Your task to perform on an android device: Show the shopping cart on target.com. Add "apple airpods" to the cart on target.com Image 0: 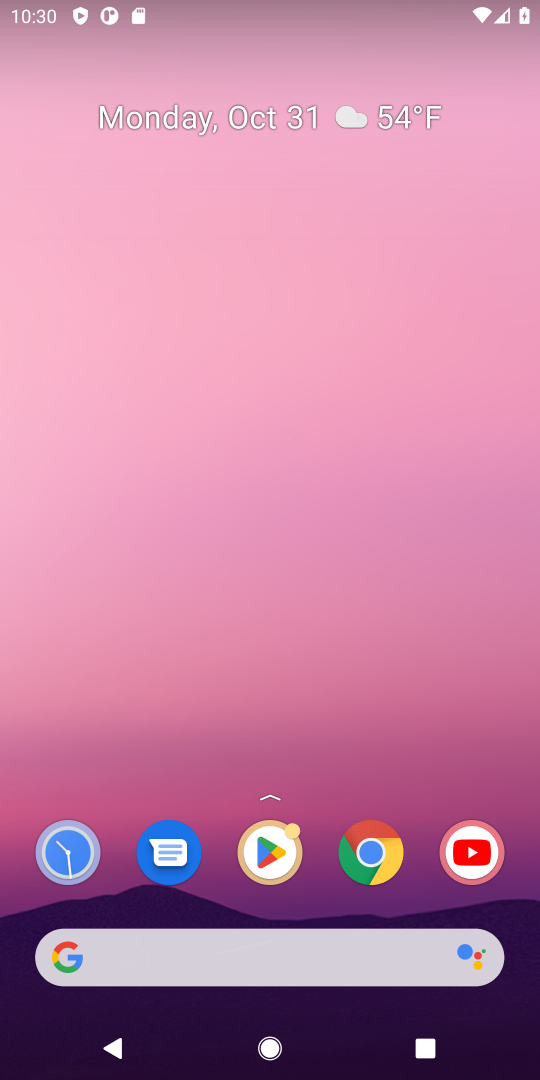
Step 0: click (390, 860)
Your task to perform on an android device: Show the shopping cart on target.com. Add "apple airpods" to the cart on target.com Image 1: 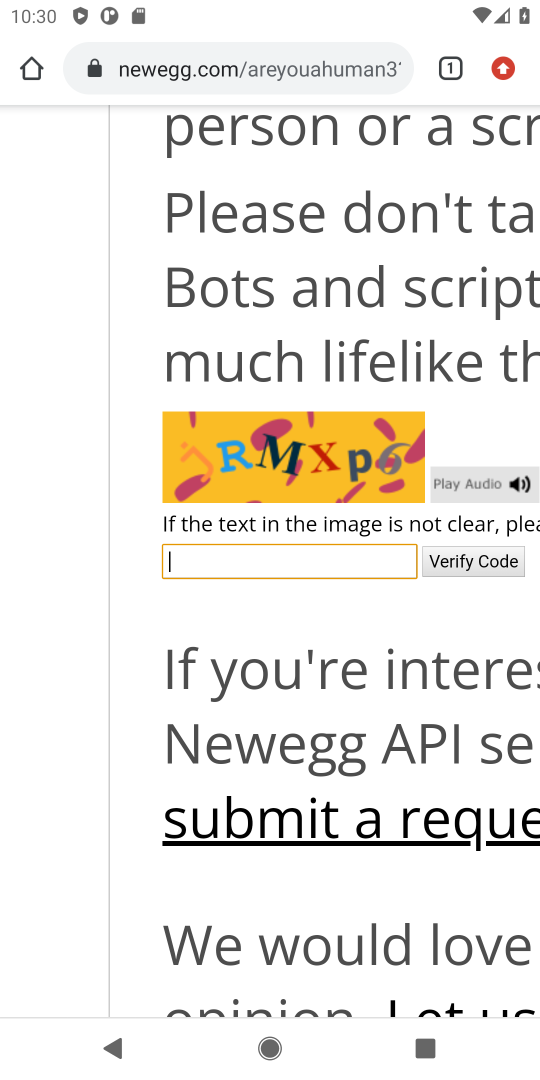
Step 1: type "target.com"
Your task to perform on an android device: Show the shopping cart on target.com. Add "apple airpods" to the cart on target.com Image 2: 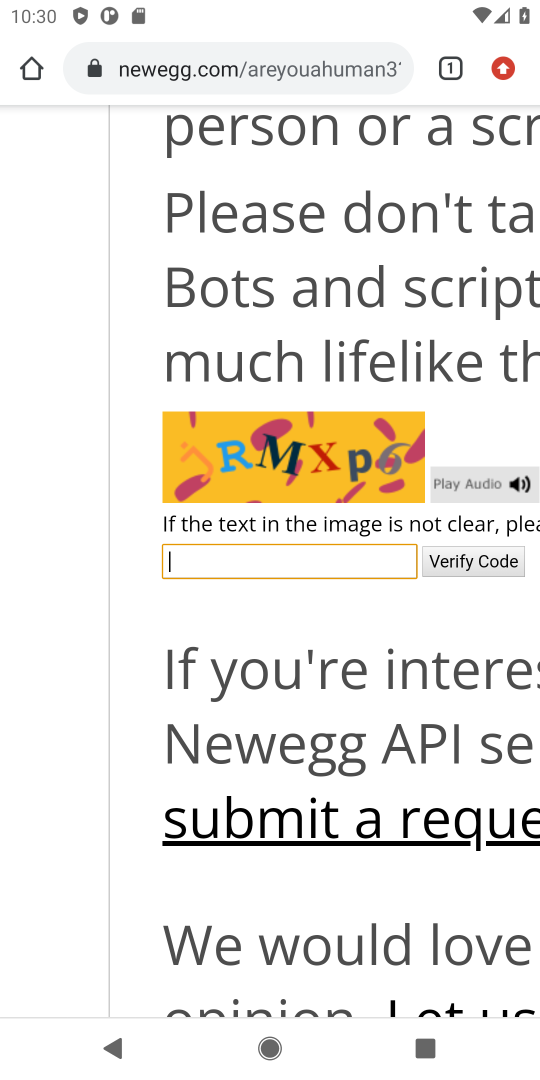
Step 2: drag from (344, 509) to (307, 67)
Your task to perform on an android device: Show the shopping cart on target.com. Add "apple airpods" to the cart on target.com Image 3: 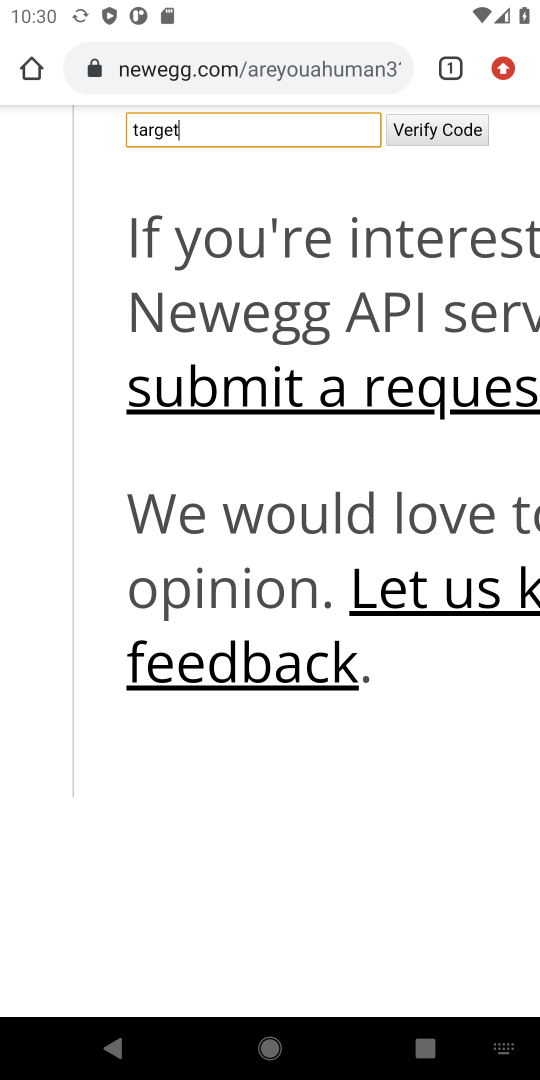
Step 3: click (320, 64)
Your task to perform on an android device: Show the shopping cart on target.com. Add "apple airpods" to the cart on target.com Image 4: 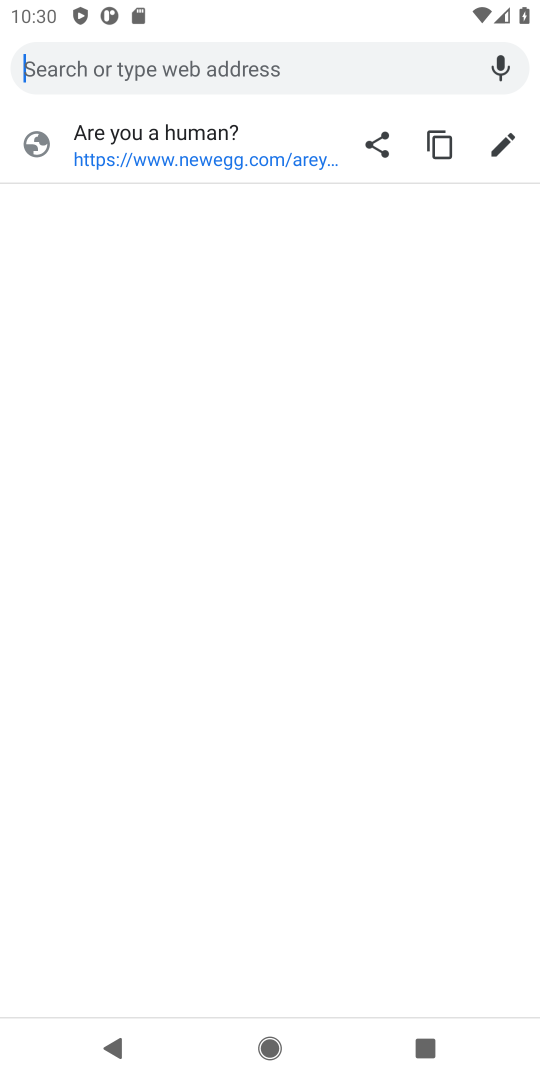
Step 4: type "target.com"
Your task to perform on an android device: Show the shopping cart on target.com. Add "apple airpods" to the cart on target.com Image 5: 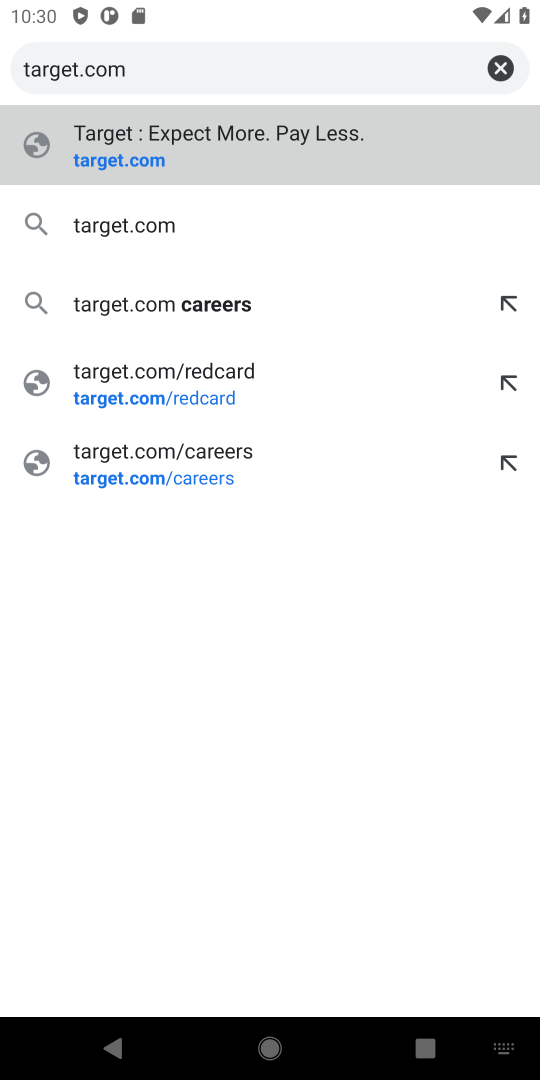
Step 5: type ""
Your task to perform on an android device: Show the shopping cart on target.com. Add "apple airpods" to the cart on target.com Image 6: 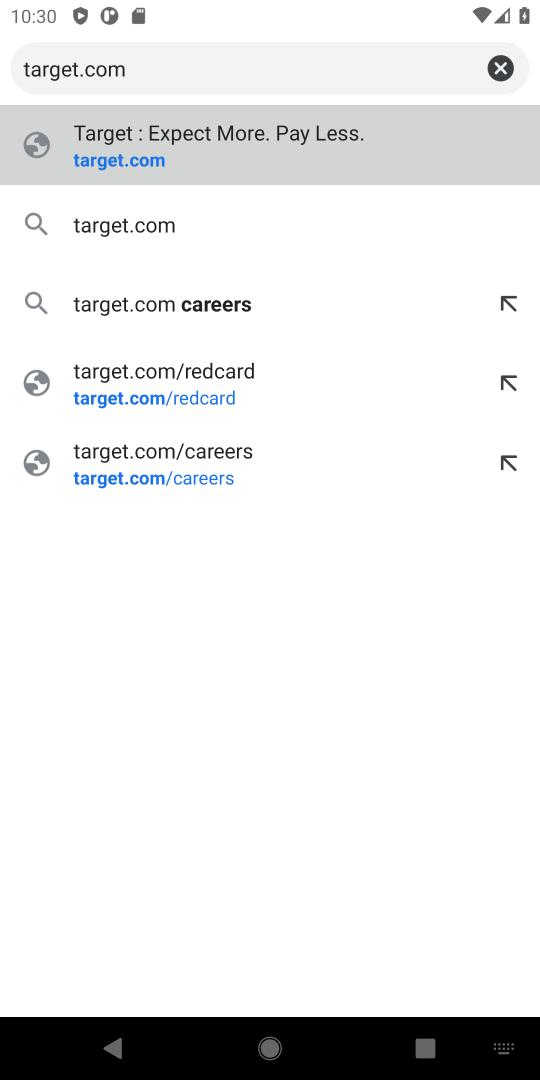
Step 6: press enter
Your task to perform on an android device: Show the shopping cart on target.com. Add "apple airpods" to the cart on target.com Image 7: 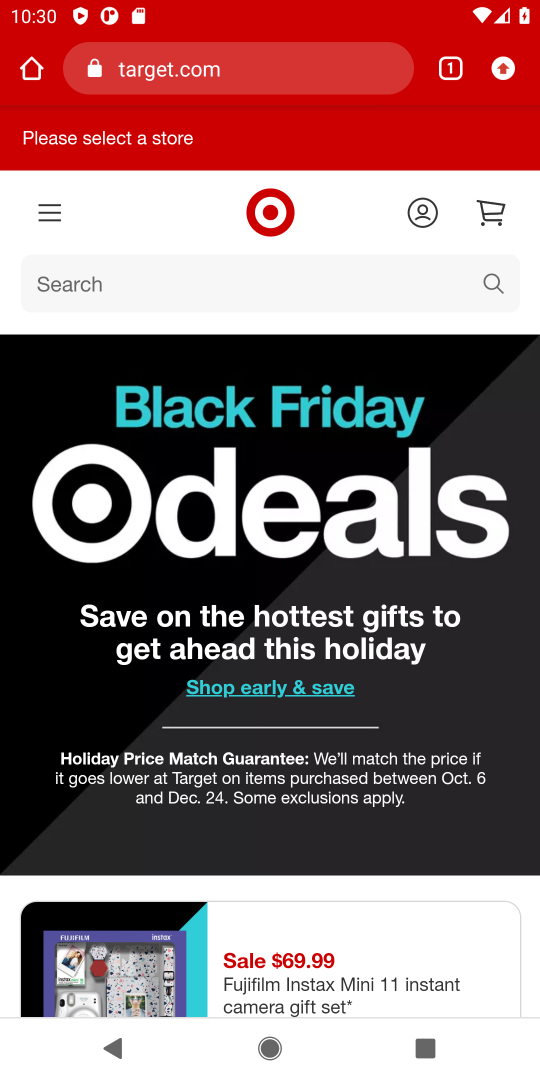
Step 7: click (225, 279)
Your task to perform on an android device: Show the shopping cart on target.com. Add "apple airpods" to the cart on target.com Image 8: 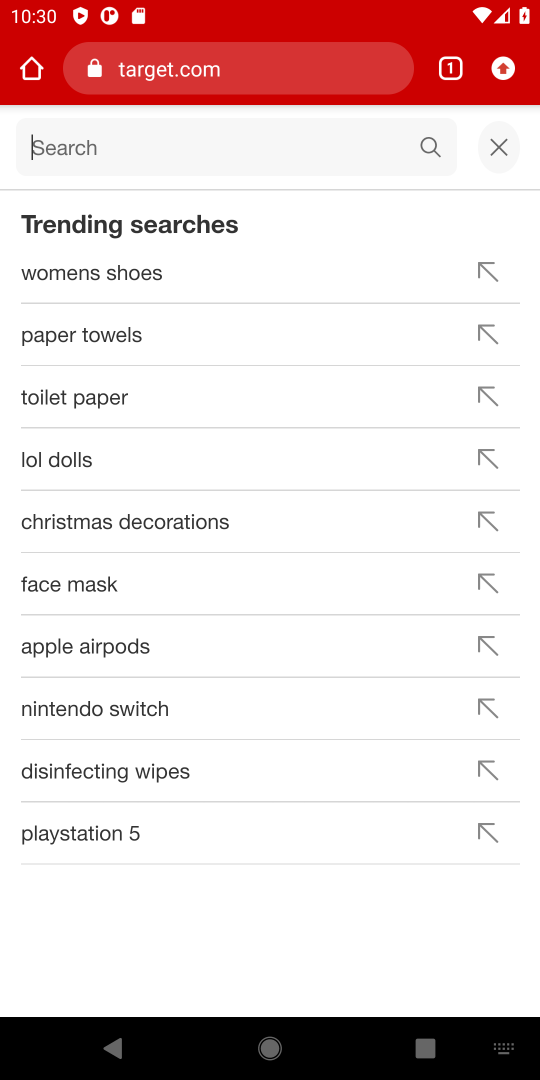
Step 8: click (501, 152)
Your task to perform on an android device: Show the shopping cart on target.com. Add "apple airpods" to the cart on target.com Image 9: 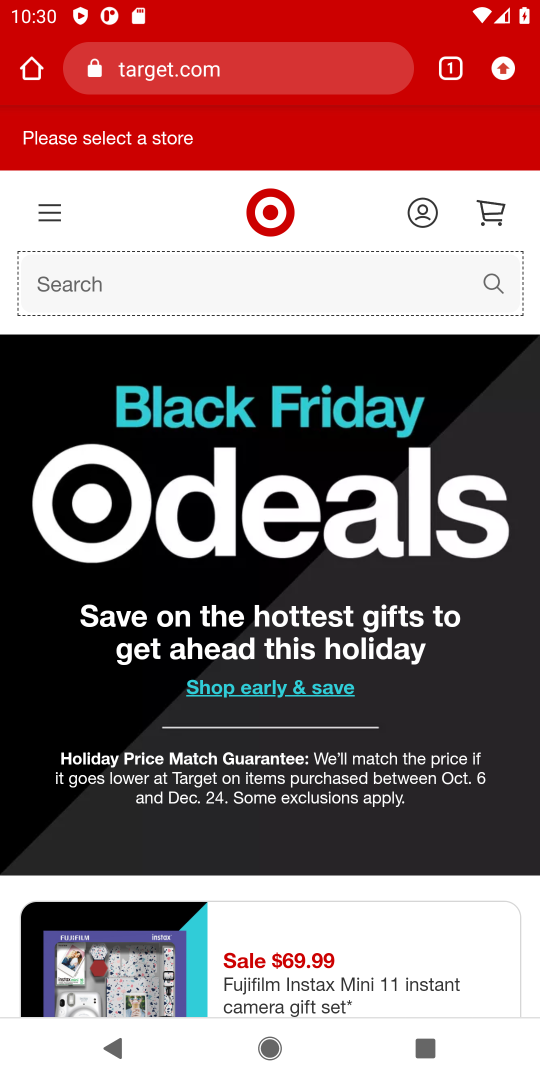
Step 9: click (490, 221)
Your task to perform on an android device: Show the shopping cart on target.com. Add "apple airpods" to the cart on target.com Image 10: 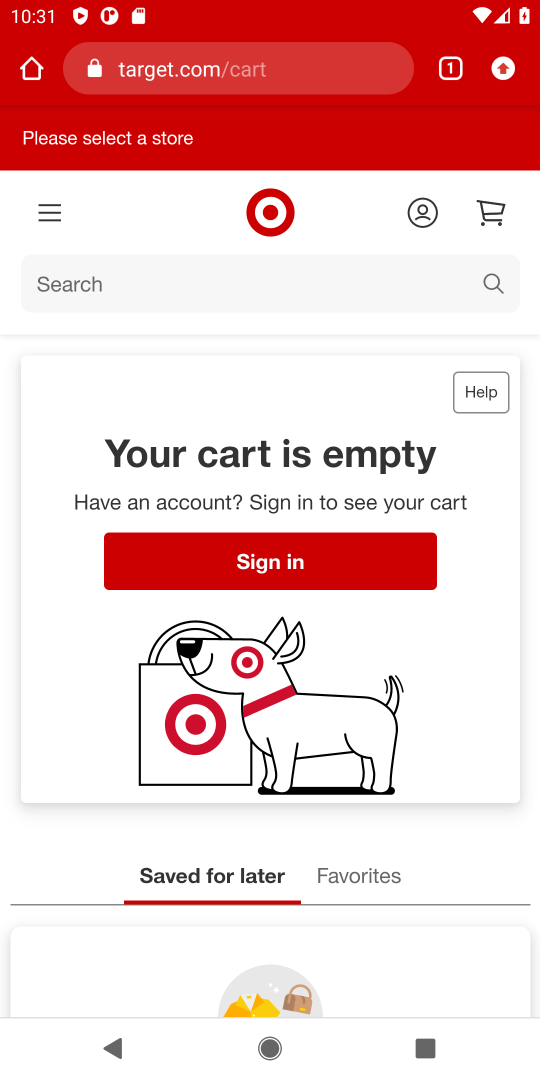
Step 10: click (199, 287)
Your task to perform on an android device: Show the shopping cart on target.com. Add "apple airpods" to the cart on target.com Image 11: 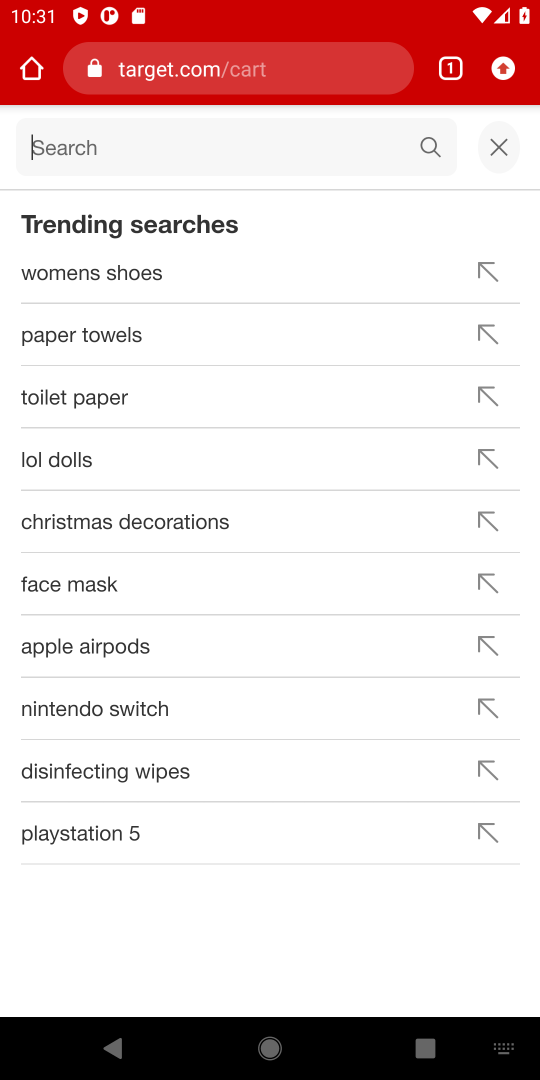
Step 11: type "apple airpods"
Your task to perform on an android device: Show the shopping cart on target.com. Add "apple airpods" to the cart on target.com Image 12: 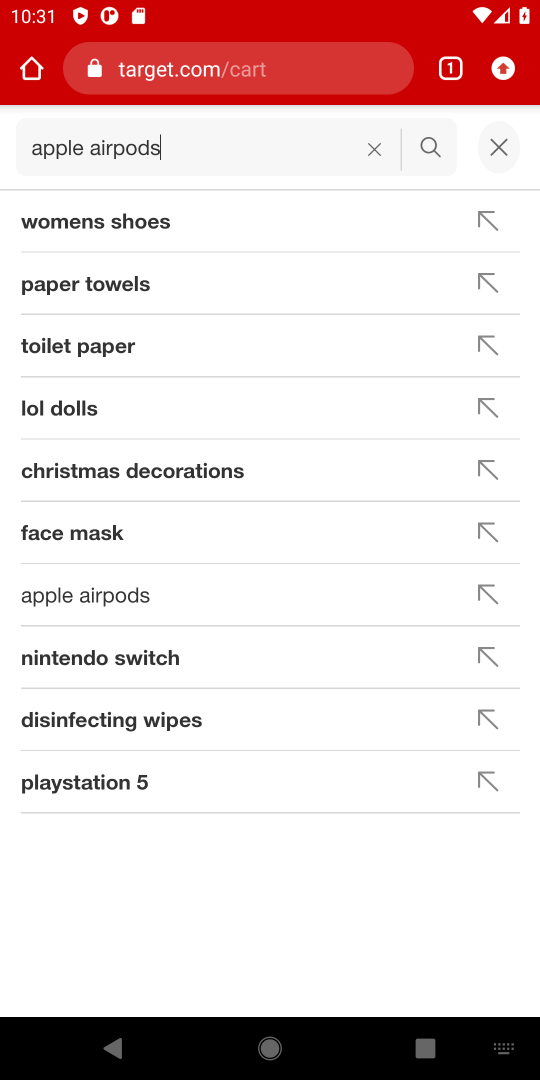
Step 12: type ""
Your task to perform on an android device: Show the shopping cart on target.com. Add "apple airpods" to the cart on target.com Image 13: 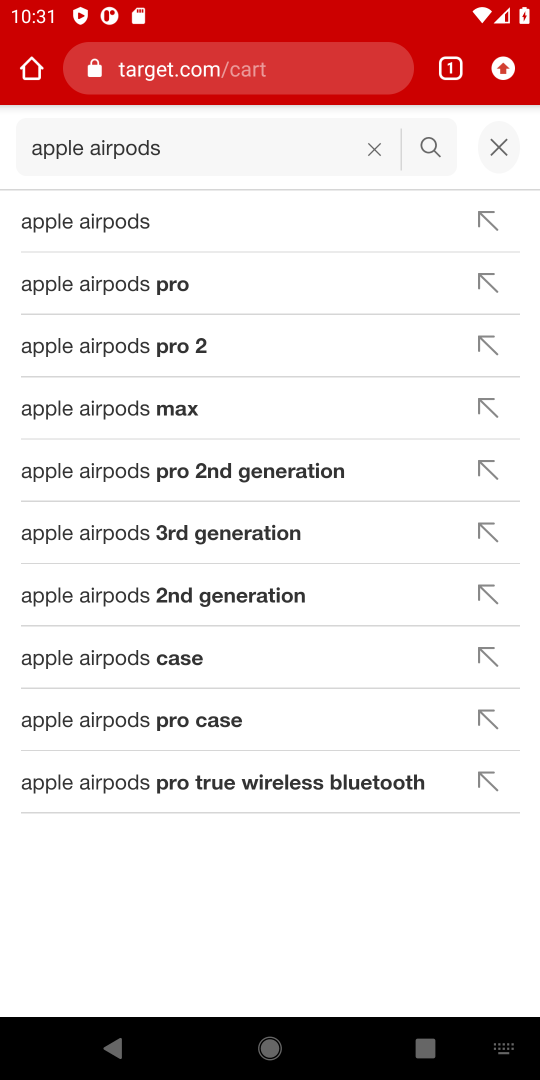
Step 13: press enter
Your task to perform on an android device: Show the shopping cart on target.com. Add "apple airpods" to the cart on target.com Image 14: 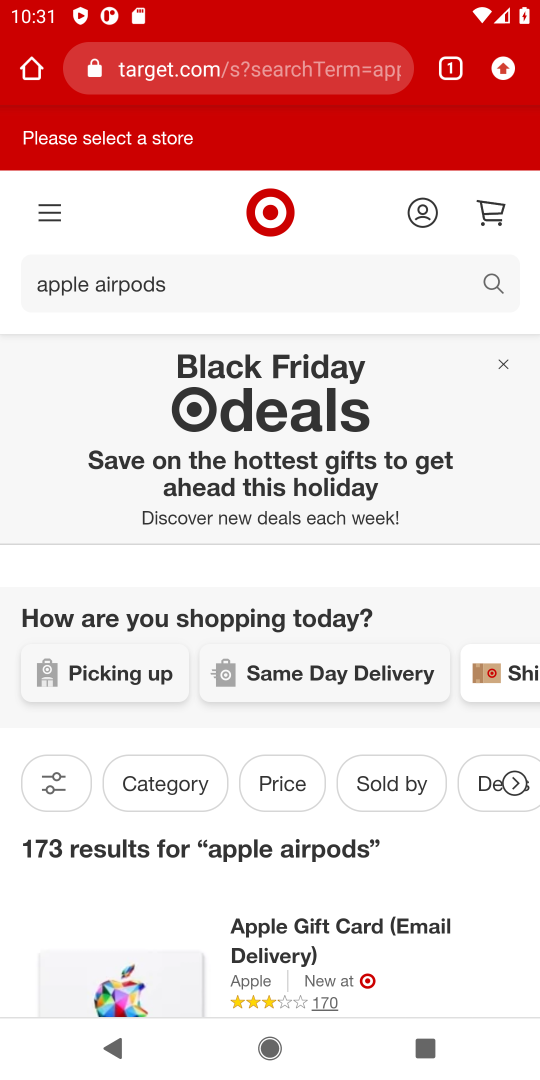
Step 14: type "apple airpods"
Your task to perform on an android device: Show the shopping cart on target.com. Add "apple airpods" to the cart on target.com Image 15: 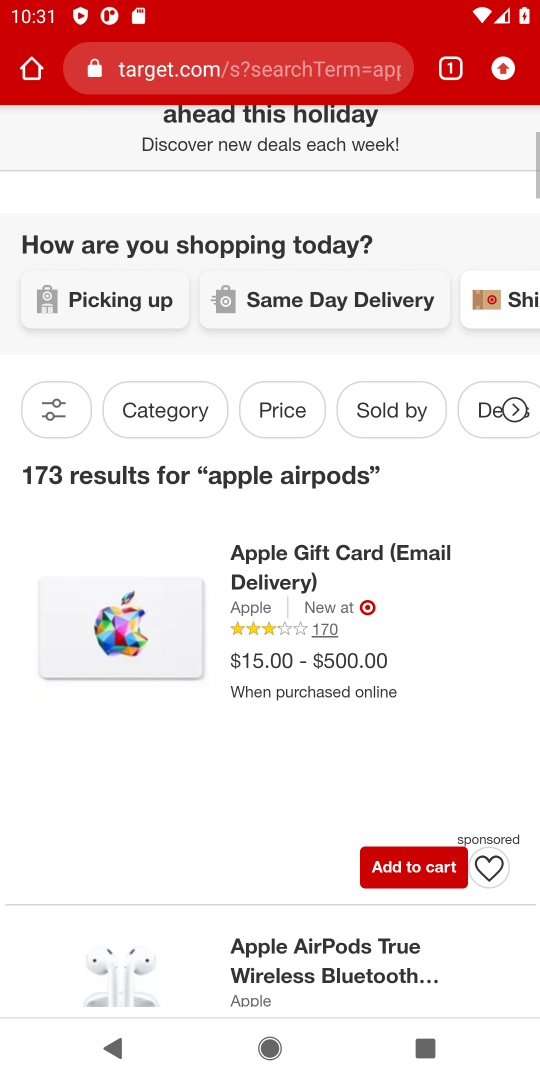
Step 15: type ""
Your task to perform on an android device: Show the shopping cart on target.com. Add "apple airpods" to the cart on target.com Image 16: 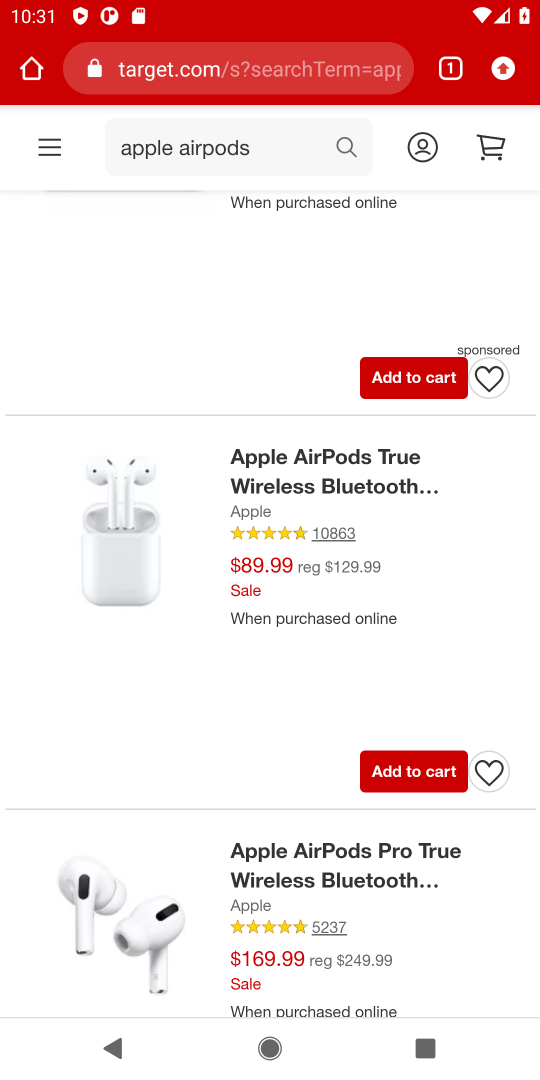
Step 16: click (319, 473)
Your task to perform on an android device: Show the shopping cart on target.com. Add "apple airpods" to the cart on target.com Image 17: 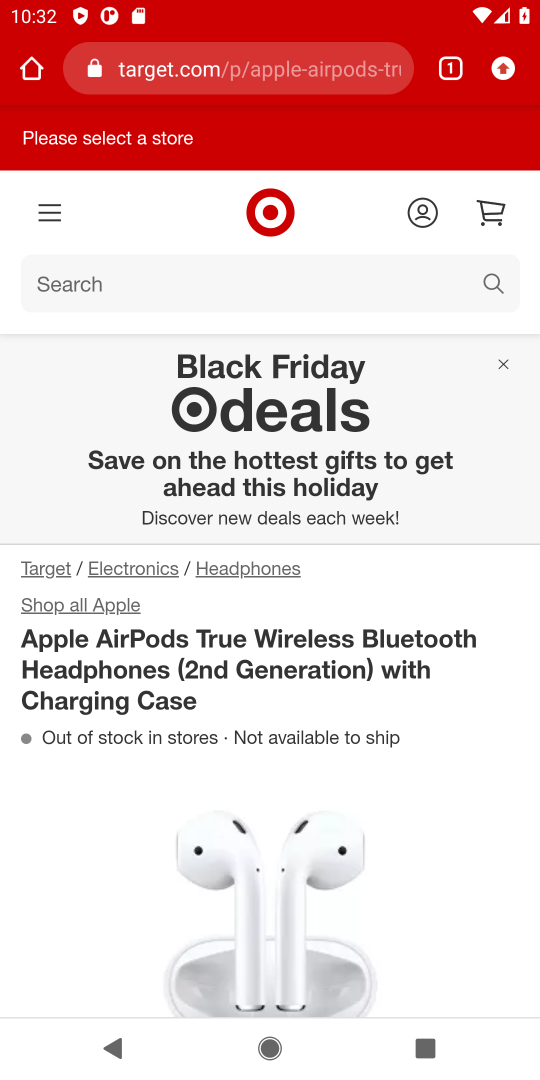
Step 17: drag from (395, 812) to (386, 307)
Your task to perform on an android device: Show the shopping cart on target.com. Add "apple airpods" to the cart on target.com Image 18: 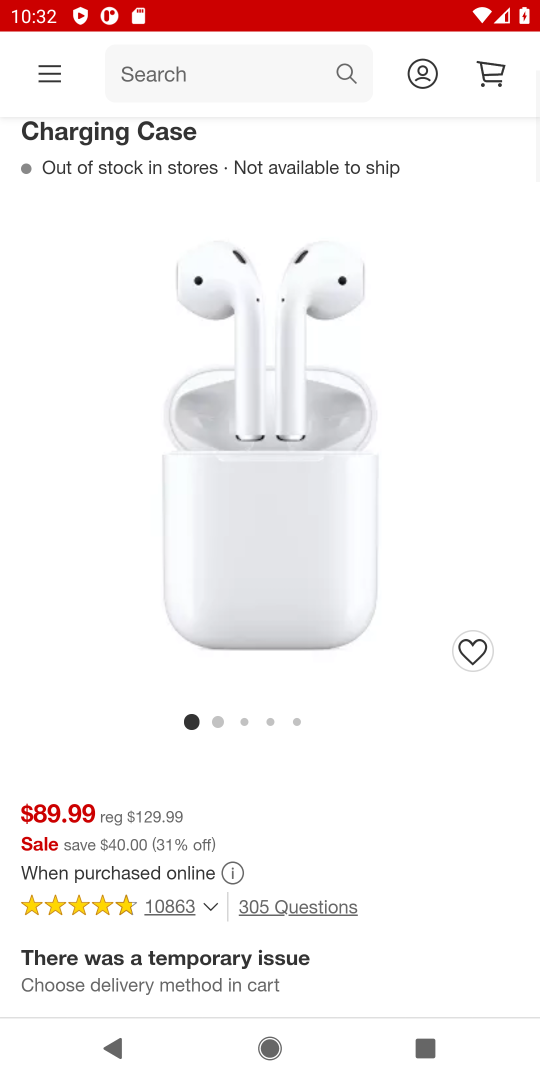
Step 18: drag from (377, 870) to (336, 432)
Your task to perform on an android device: Show the shopping cart on target.com. Add "apple airpods" to the cart on target.com Image 19: 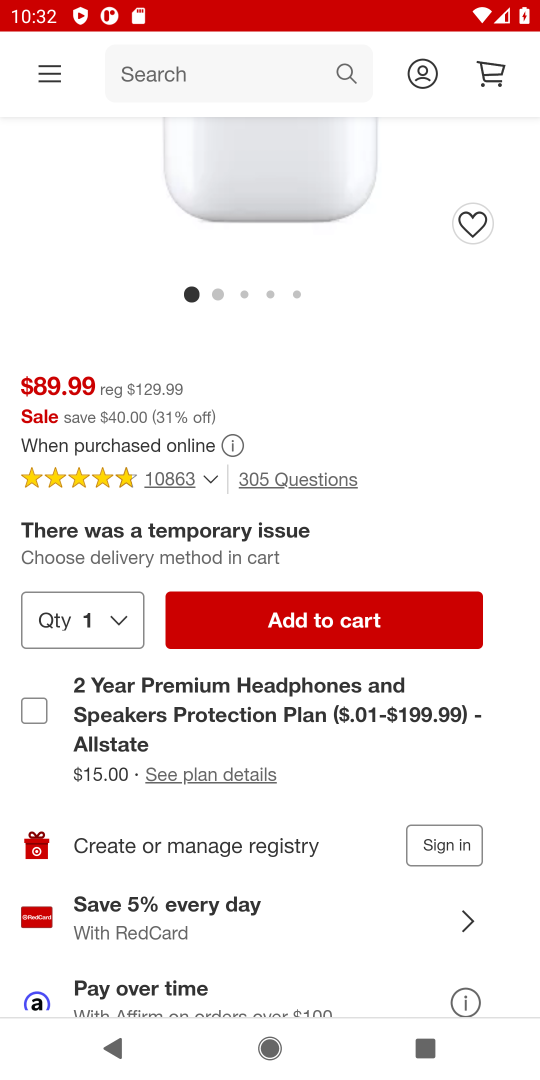
Step 19: click (383, 615)
Your task to perform on an android device: Show the shopping cart on target.com. Add "apple airpods" to the cart on target.com Image 20: 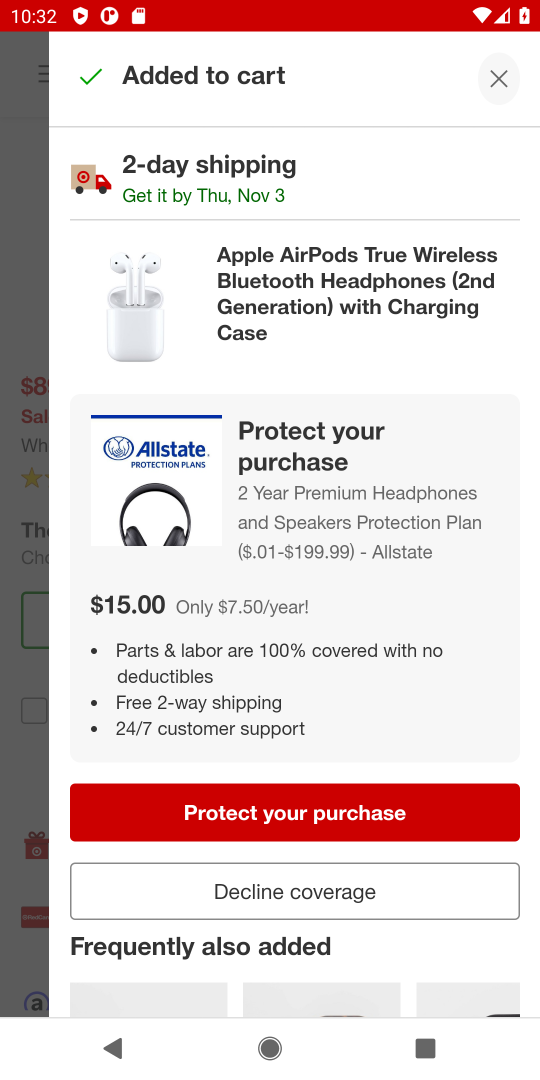
Step 20: task complete